Your task to perform on an android device: Open calendar and show me the third week of next month Image 0: 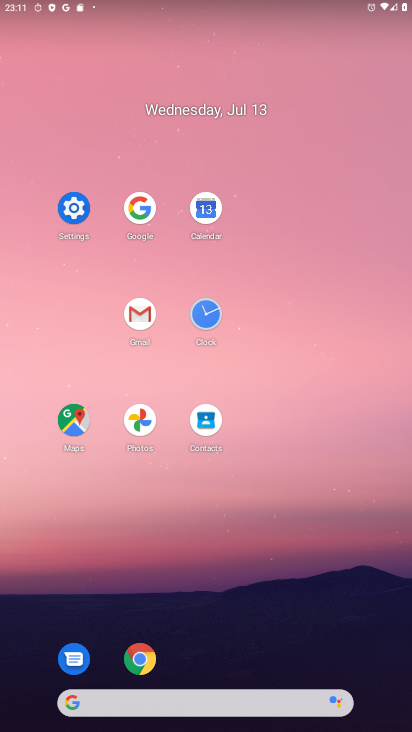
Step 0: click (205, 316)
Your task to perform on an android device: Open calendar and show me the third week of next month Image 1: 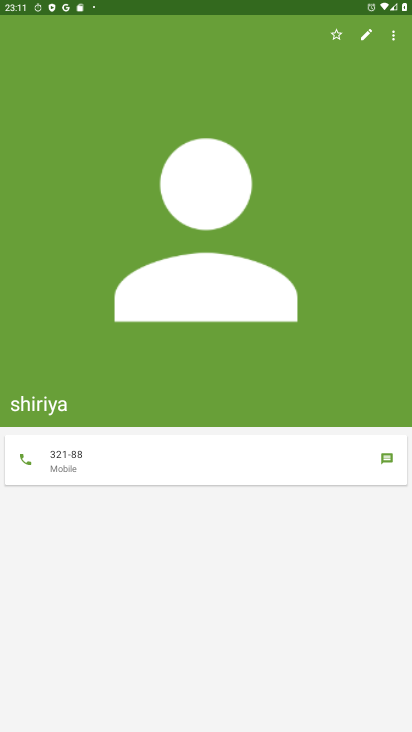
Step 1: press home button
Your task to perform on an android device: Open calendar and show me the third week of next month Image 2: 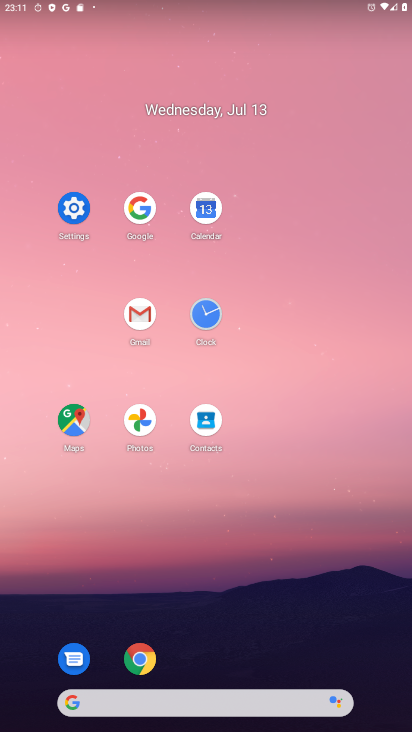
Step 2: click (211, 202)
Your task to perform on an android device: Open calendar and show me the third week of next month Image 3: 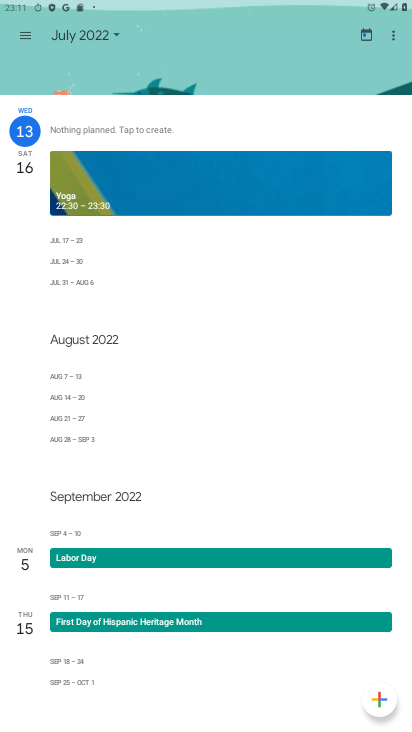
Step 3: click (120, 35)
Your task to perform on an android device: Open calendar and show me the third week of next month Image 4: 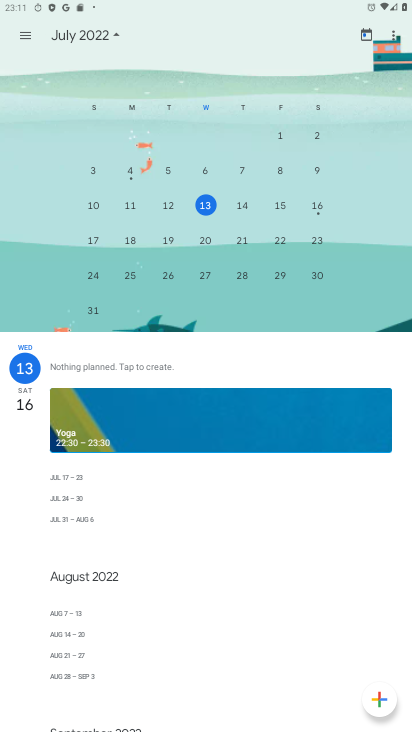
Step 4: drag from (326, 205) to (30, 241)
Your task to perform on an android device: Open calendar and show me the third week of next month Image 5: 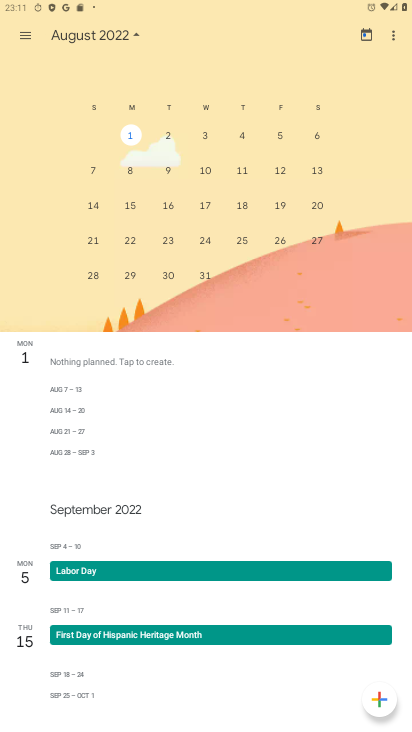
Step 5: click (23, 30)
Your task to perform on an android device: Open calendar and show me the third week of next month Image 6: 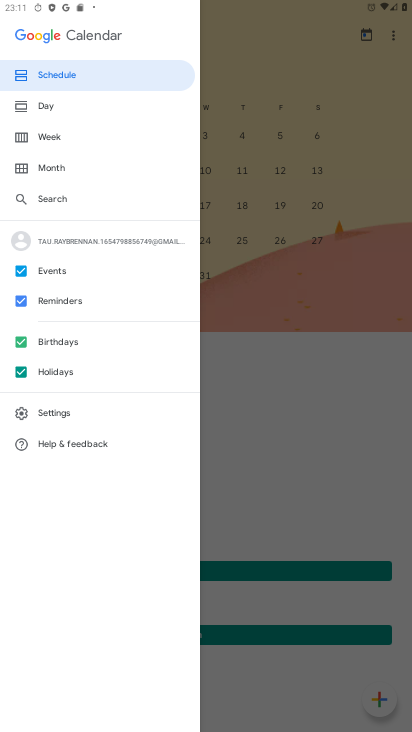
Step 6: click (57, 132)
Your task to perform on an android device: Open calendar and show me the third week of next month Image 7: 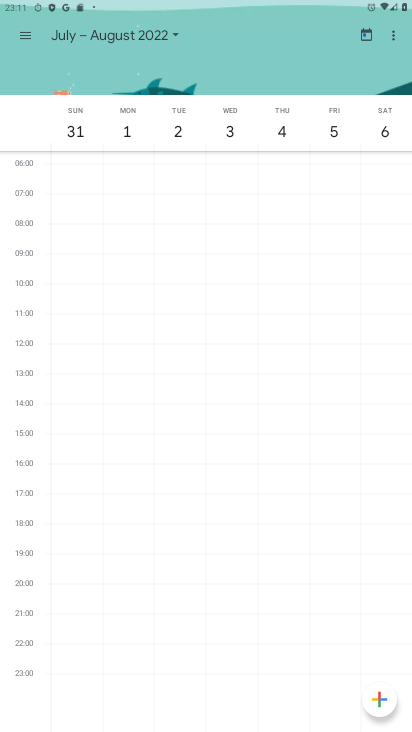
Step 7: task complete